Your task to perform on an android device: Add corsair k70 to the cart on target.com, then select checkout. Image 0: 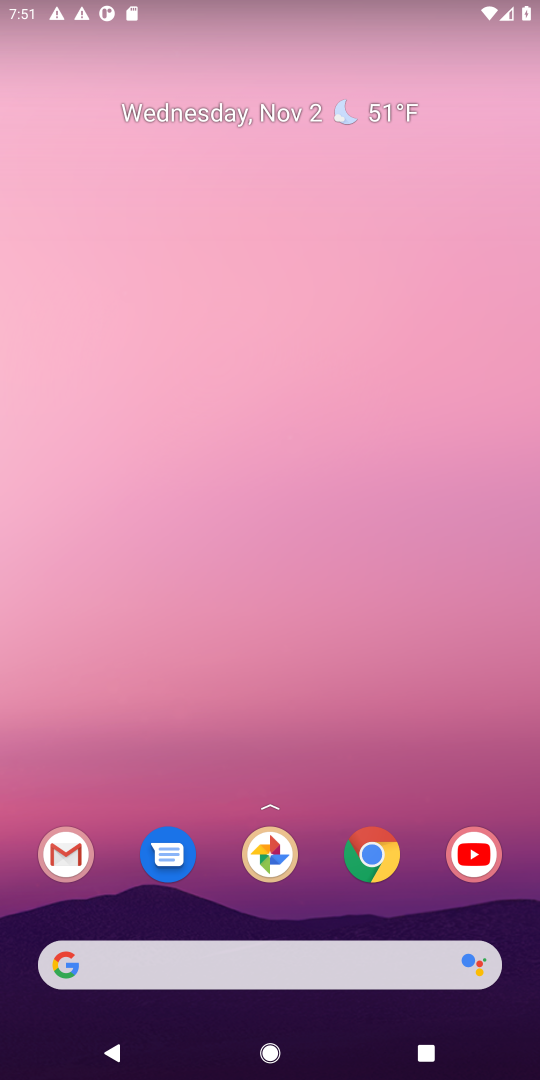
Step 0: click (369, 865)
Your task to perform on an android device: Add corsair k70 to the cart on target.com, then select checkout. Image 1: 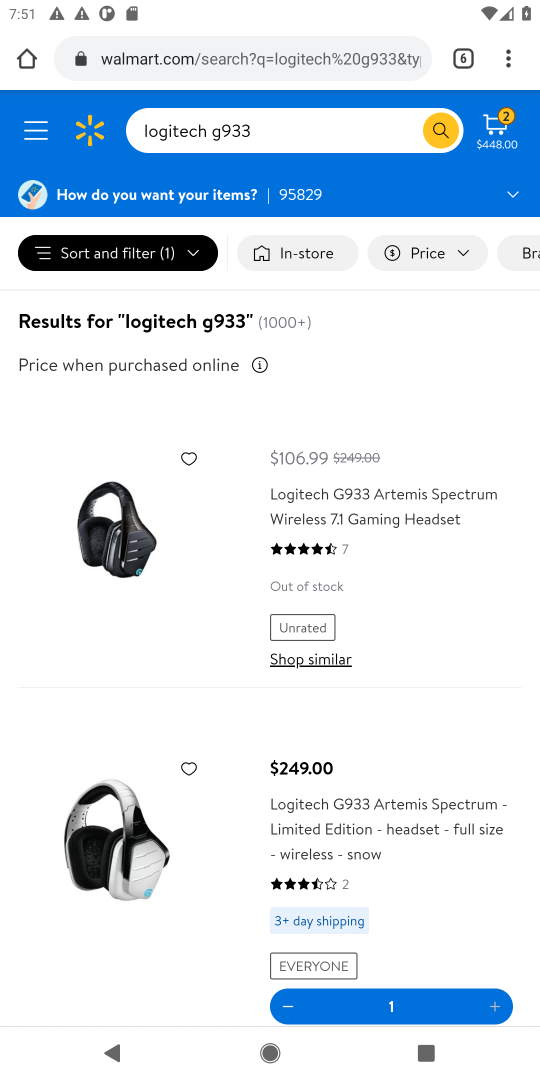
Step 1: click (457, 53)
Your task to perform on an android device: Add corsair k70 to the cart on target.com, then select checkout. Image 2: 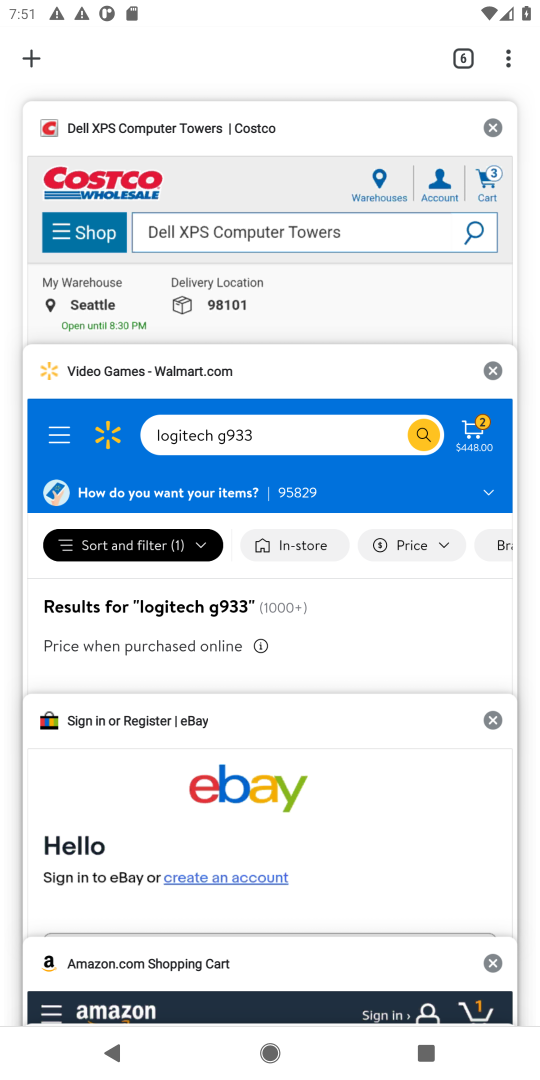
Step 2: drag from (198, 945) to (294, 517)
Your task to perform on an android device: Add corsair k70 to the cart on target.com, then select checkout. Image 3: 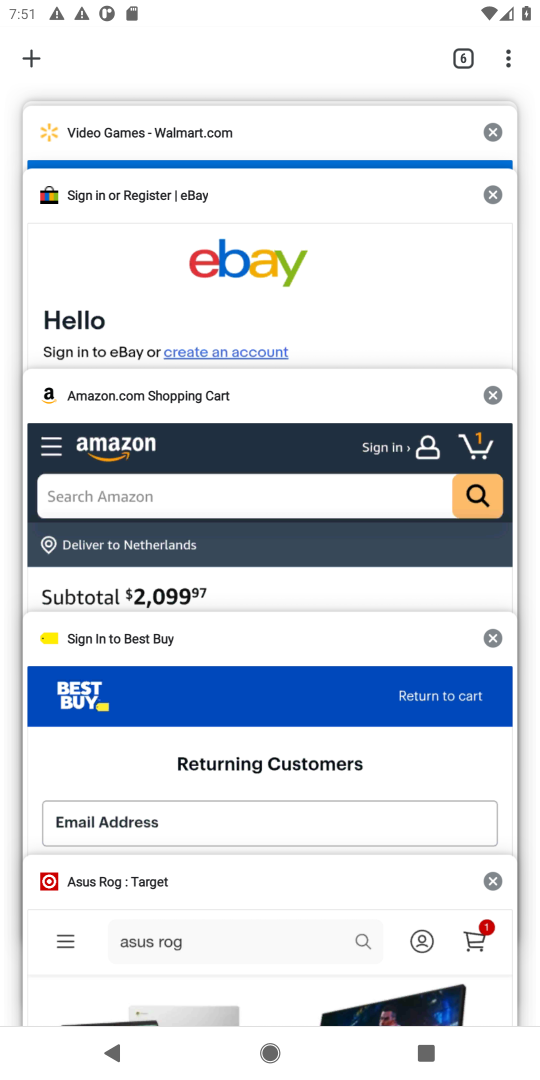
Step 3: click (183, 943)
Your task to perform on an android device: Add corsair k70 to the cart on target.com, then select checkout. Image 4: 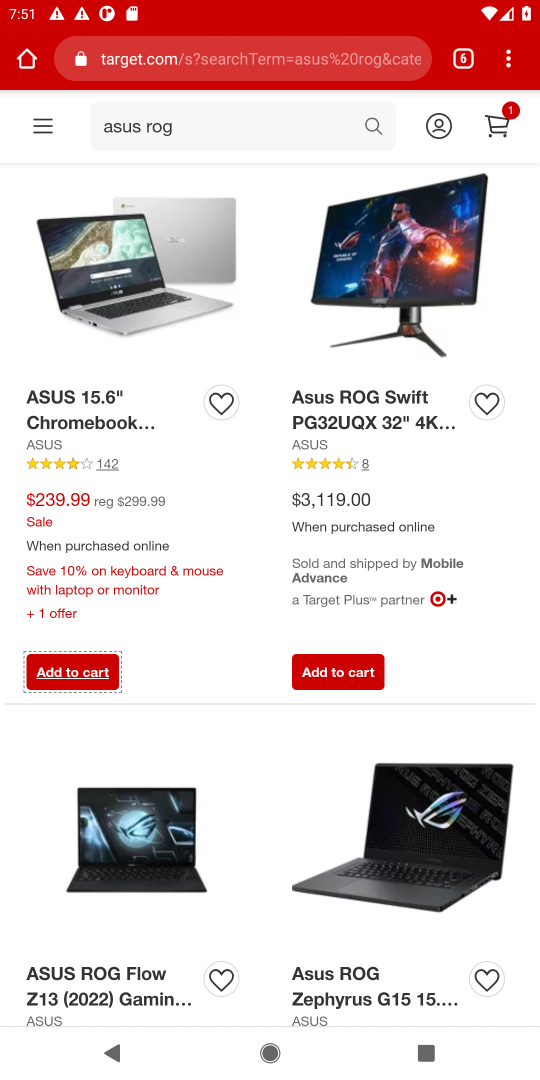
Step 4: click (354, 119)
Your task to perform on an android device: Add corsair k70 to the cart on target.com, then select checkout. Image 5: 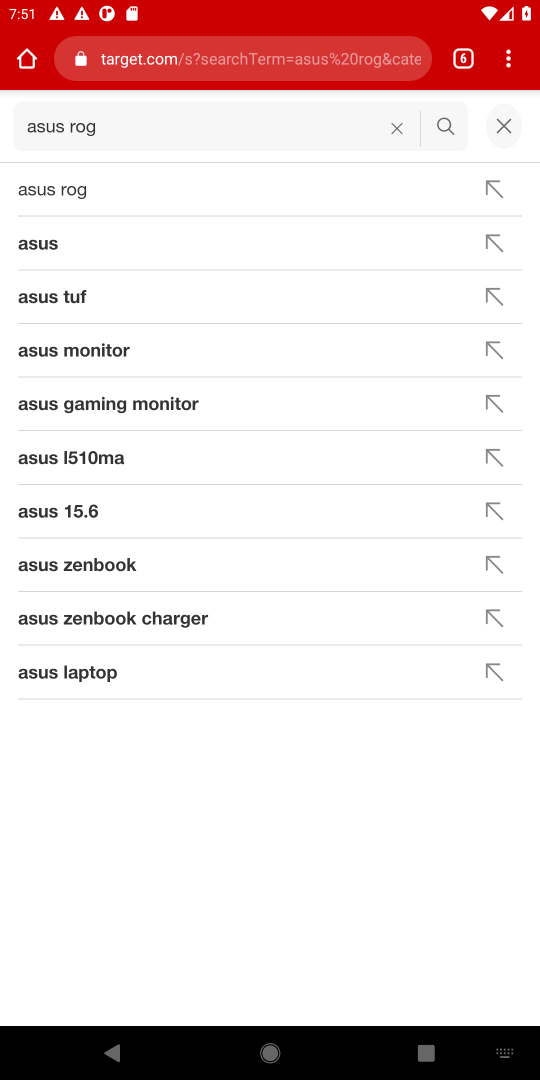
Step 5: click (396, 125)
Your task to perform on an android device: Add corsair k70 to the cart on target.com, then select checkout. Image 6: 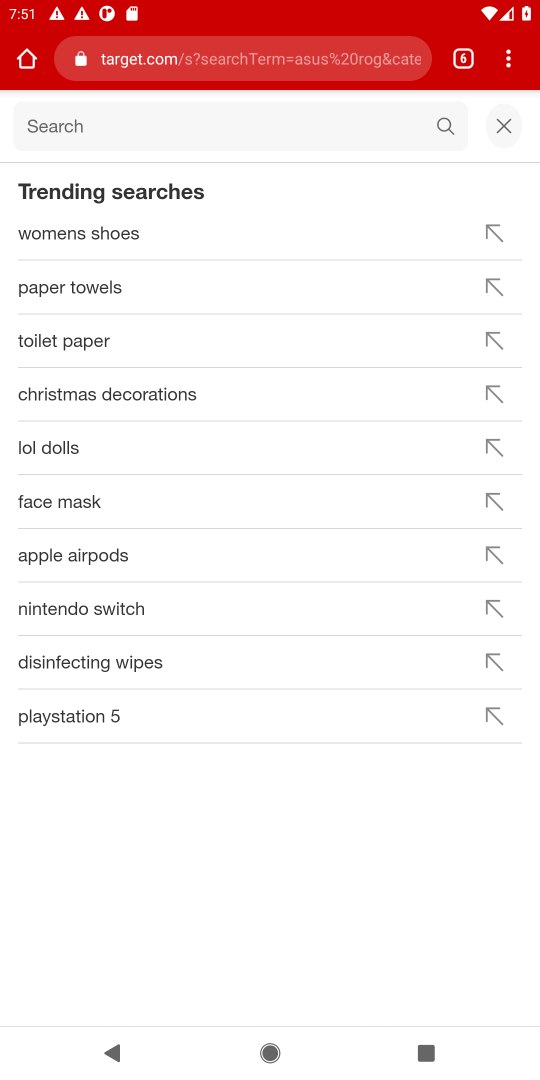
Step 6: type "corsair k70"
Your task to perform on an android device: Add corsair k70 to the cart on target.com, then select checkout. Image 7: 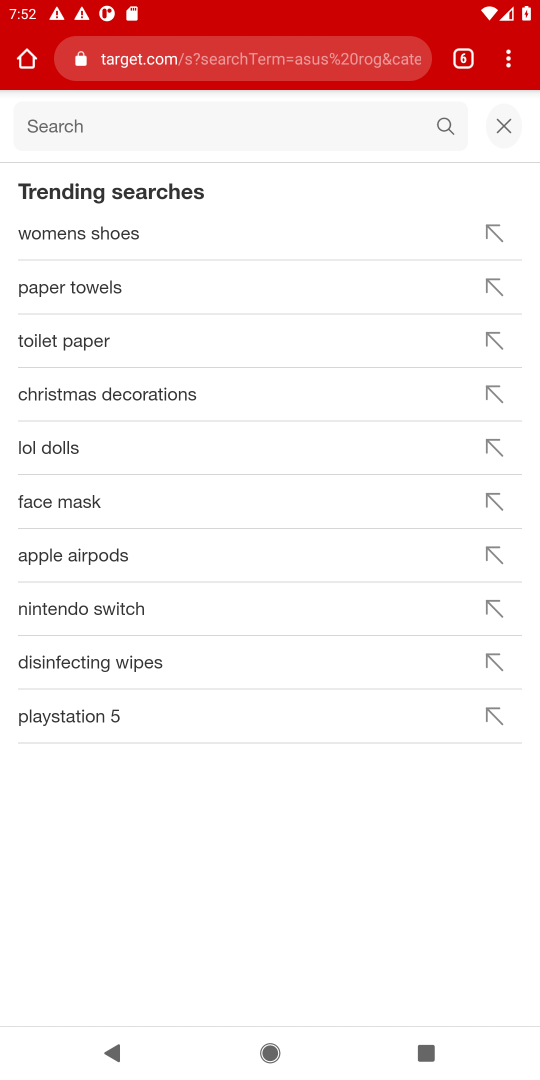
Step 7: click (44, 129)
Your task to perform on an android device: Add corsair k70 to the cart on target.com, then select checkout. Image 8: 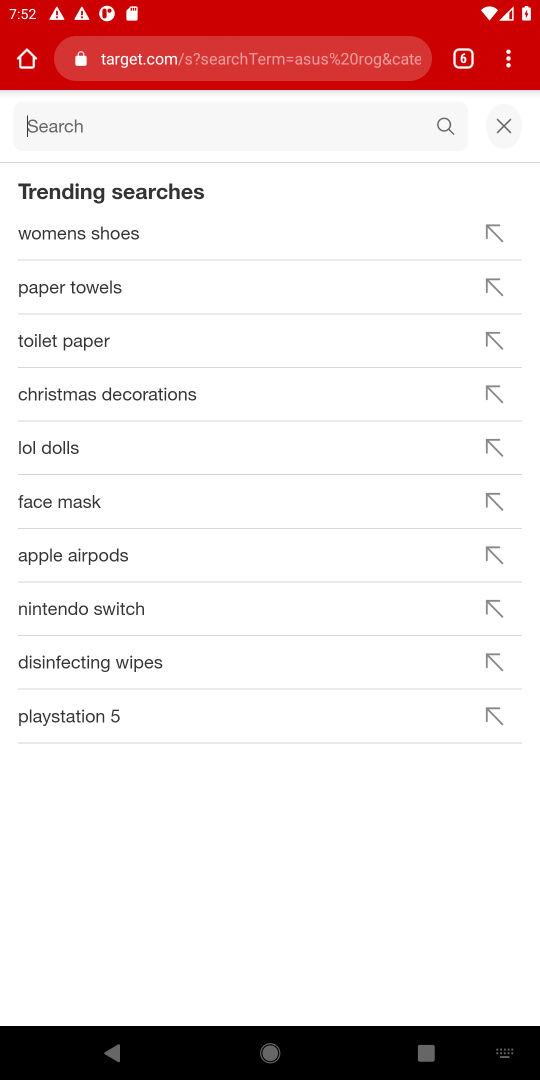
Step 8: type "corsair k70"
Your task to perform on an android device: Add corsair k70 to the cart on target.com, then select checkout. Image 9: 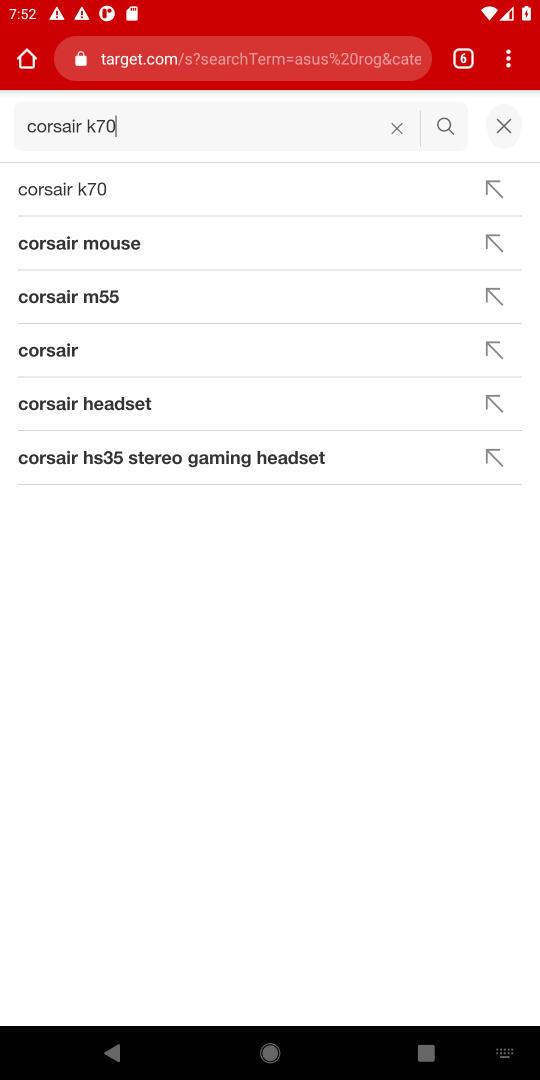
Step 9: click (52, 190)
Your task to perform on an android device: Add corsair k70 to the cart on target.com, then select checkout. Image 10: 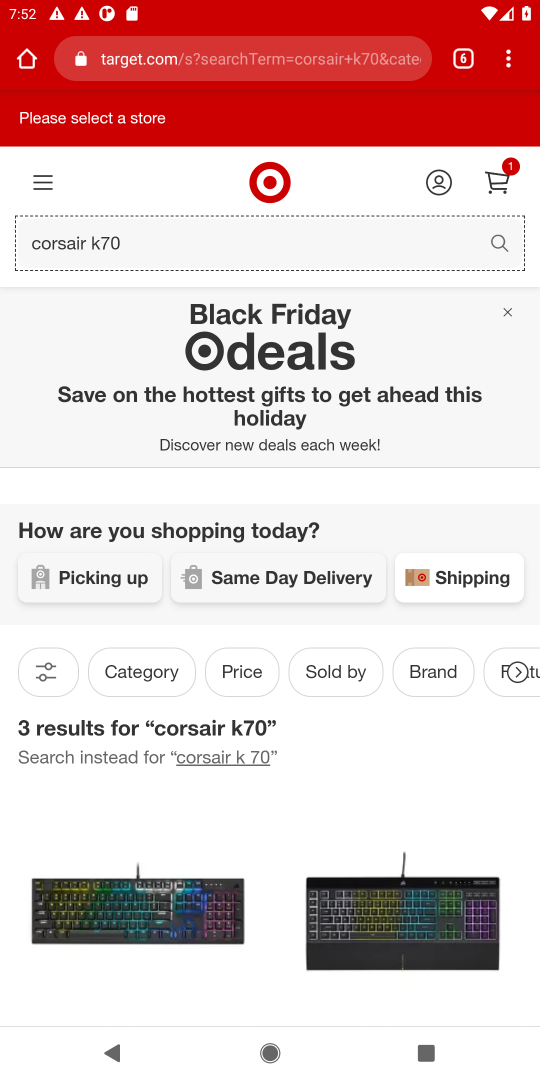
Step 10: drag from (312, 793) to (339, 101)
Your task to perform on an android device: Add corsair k70 to the cart on target.com, then select checkout. Image 11: 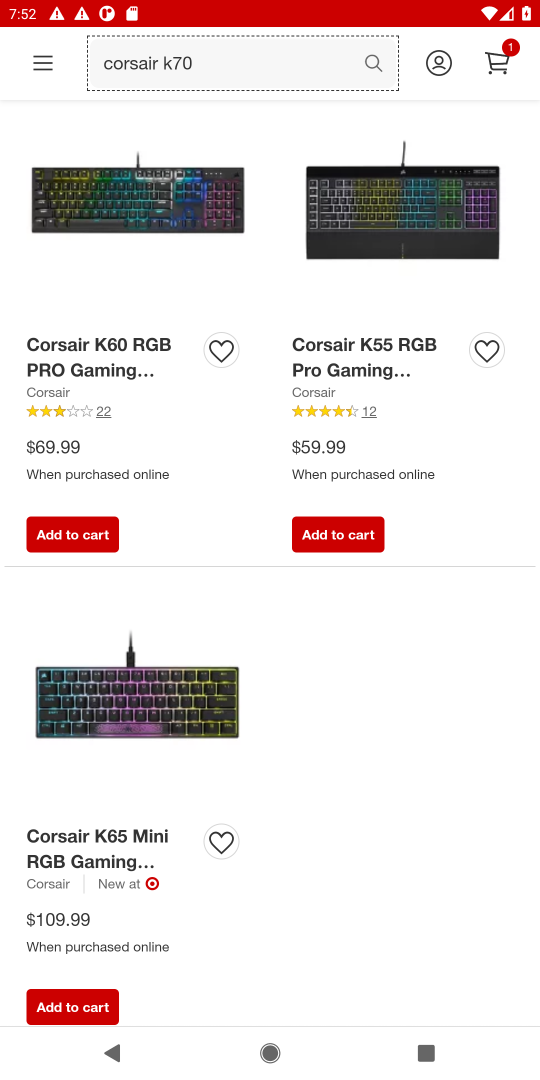
Step 11: click (81, 534)
Your task to perform on an android device: Add corsair k70 to the cart on target.com, then select checkout. Image 12: 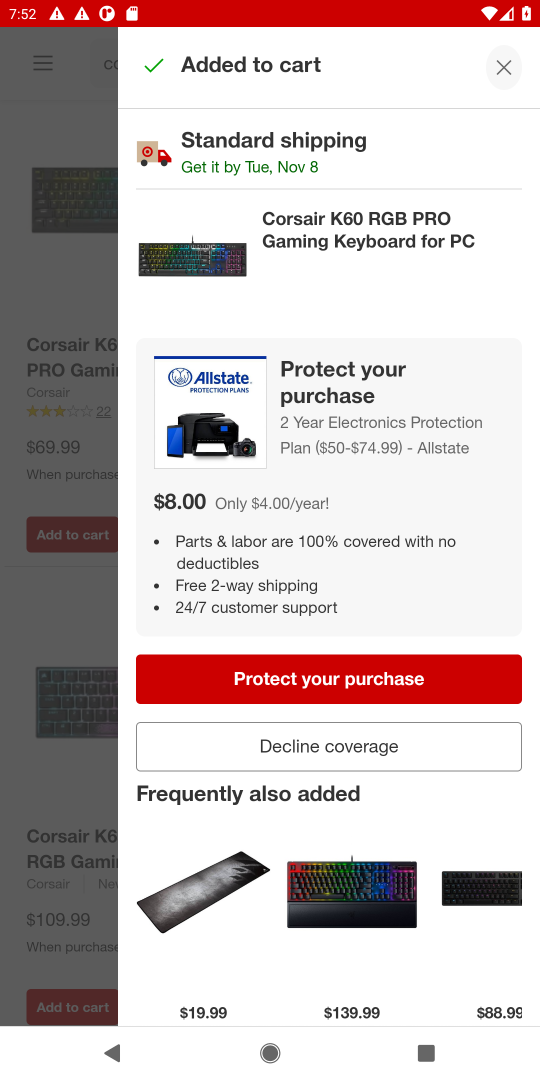
Step 12: click (341, 738)
Your task to perform on an android device: Add corsair k70 to the cart on target.com, then select checkout. Image 13: 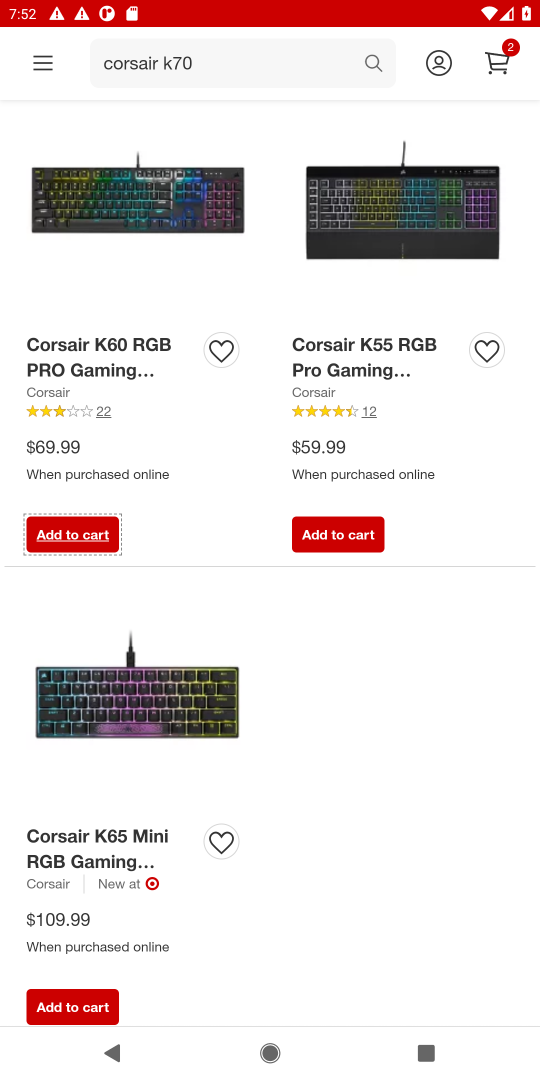
Step 13: click (505, 56)
Your task to perform on an android device: Add corsair k70 to the cart on target.com, then select checkout. Image 14: 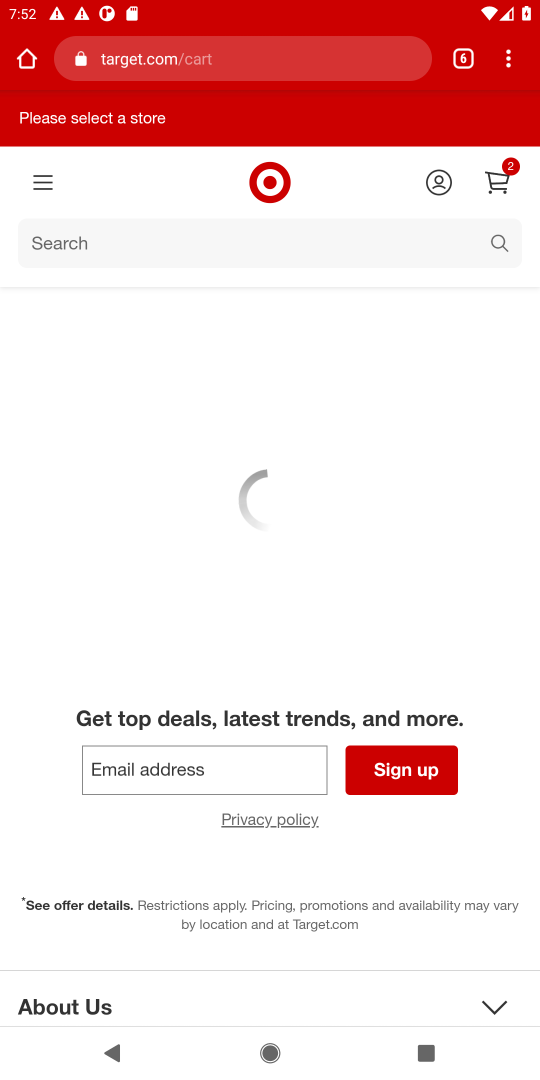
Step 14: drag from (383, 893) to (334, 214)
Your task to perform on an android device: Add corsair k70 to the cart on target.com, then select checkout. Image 15: 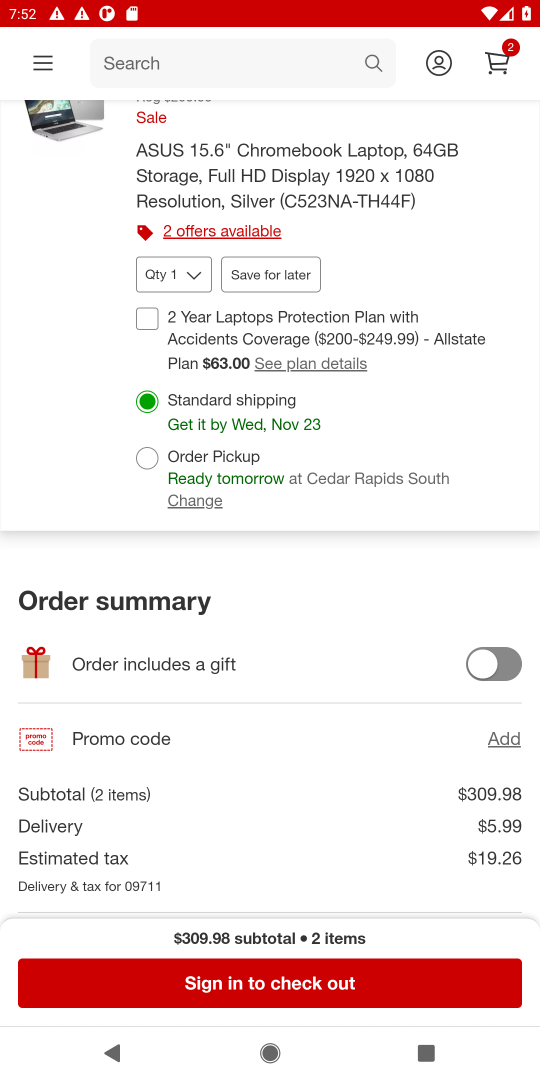
Step 15: click (283, 989)
Your task to perform on an android device: Add corsair k70 to the cart on target.com, then select checkout. Image 16: 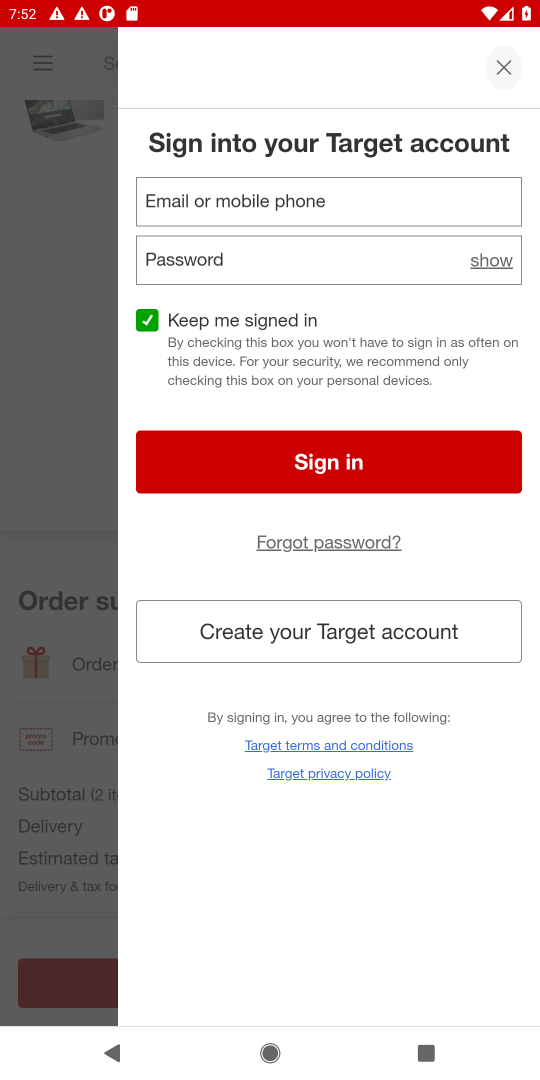
Step 16: task complete